Your task to perform on an android device: change notifications settings Image 0: 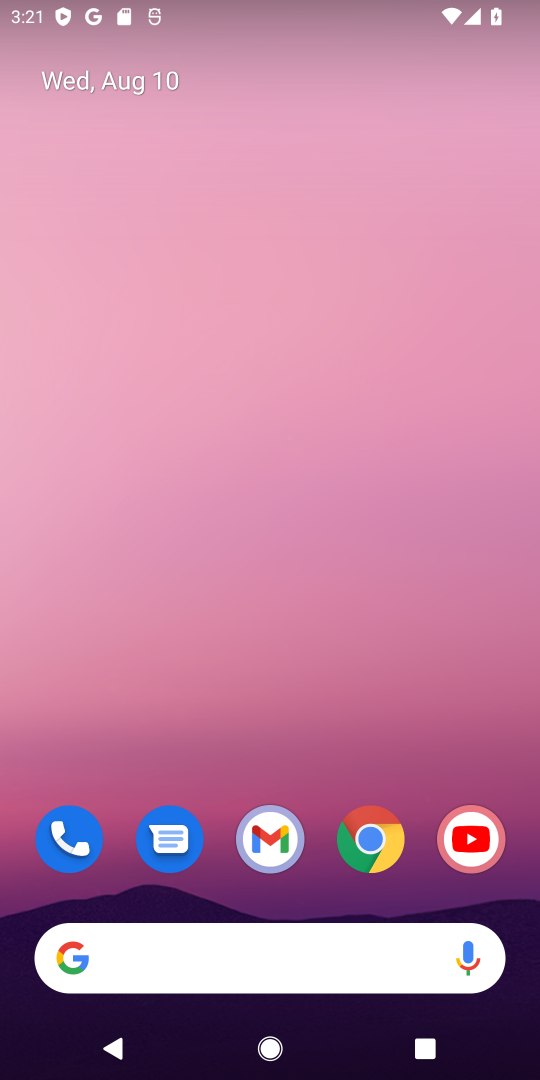
Step 0: drag from (45, 959) to (185, 606)
Your task to perform on an android device: change notifications settings Image 1: 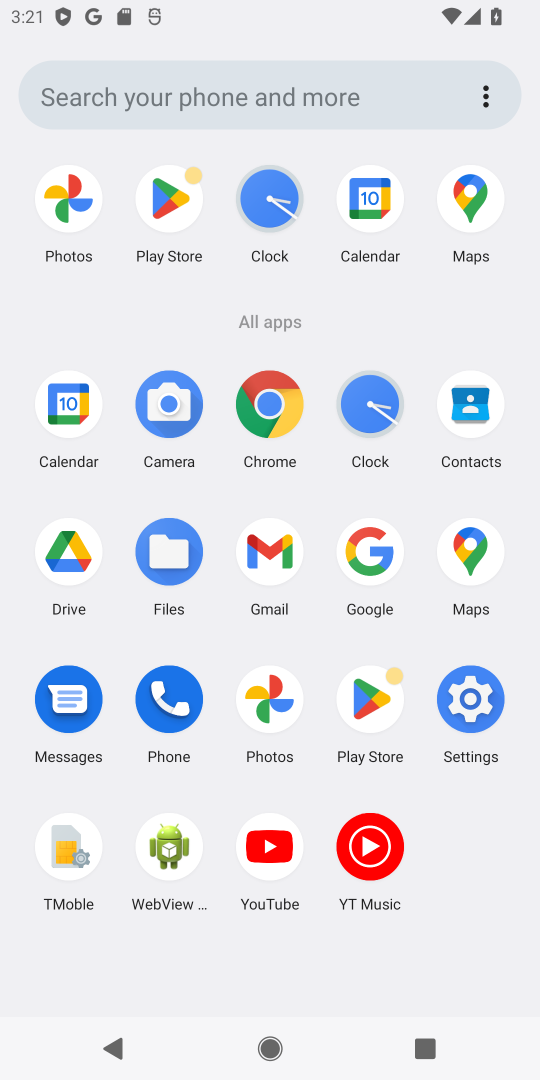
Step 1: click (474, 687)
Your task to perform on an android device: change notifications settings Image 2: 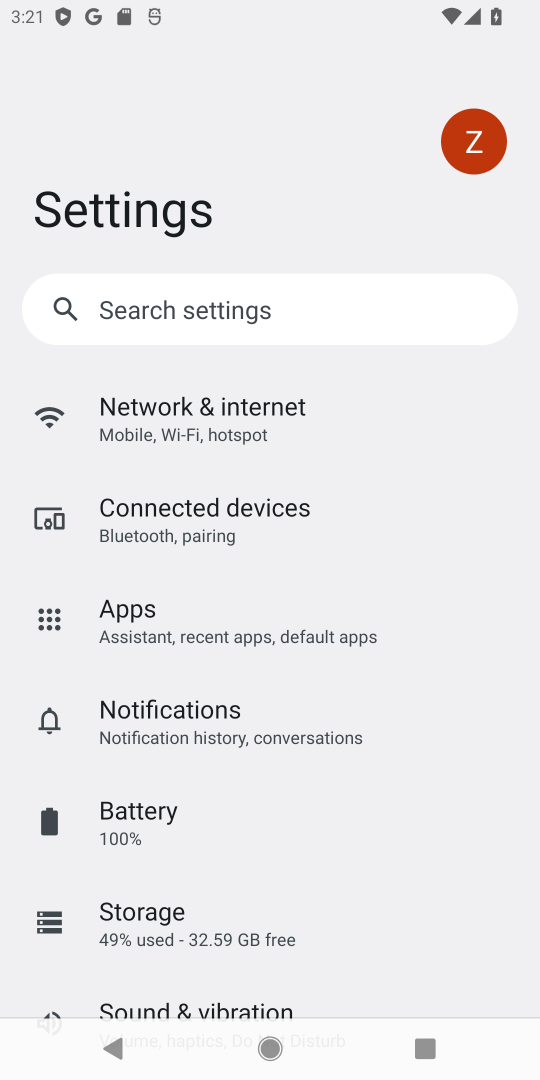
Step 2: click (220, 734)
Your task to perform on an android device: change notifications settings Image 3: 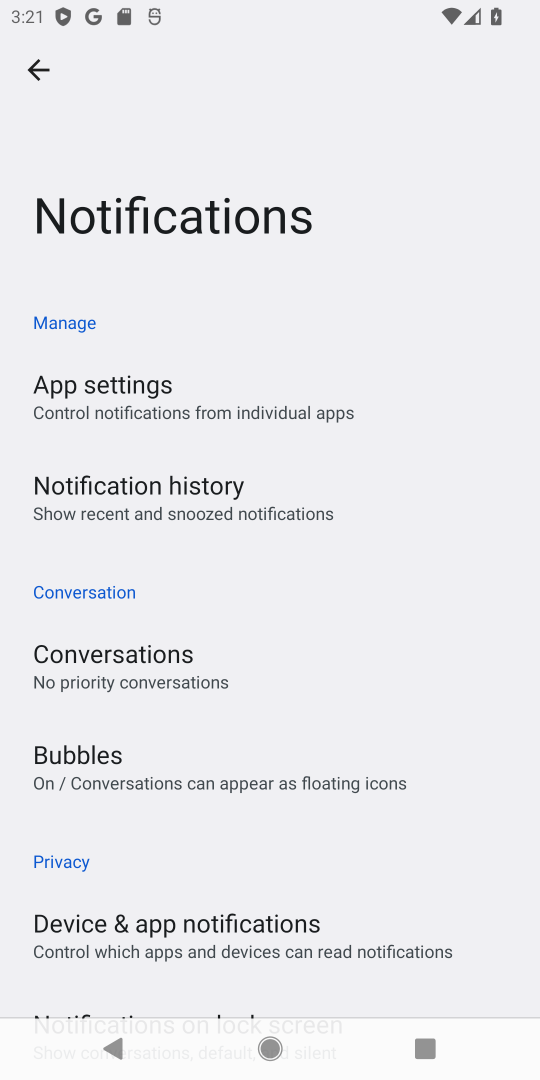
Step 3: click (242, 962)
Your task to perform on an android device: change notifications settings Image 4: 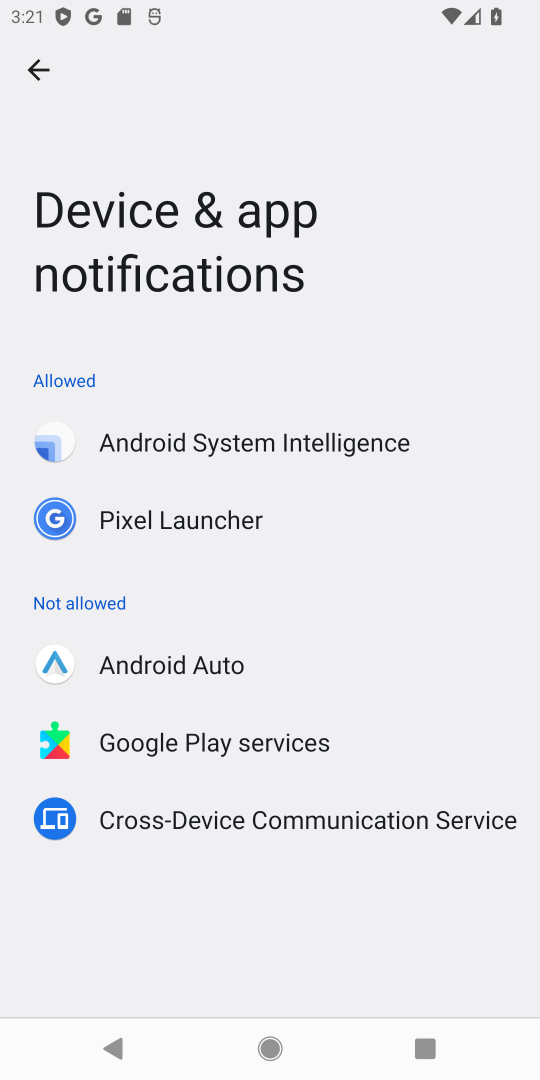
Step 4: task complete